Your task to perform on an android device: Go to internet settings Image 0: 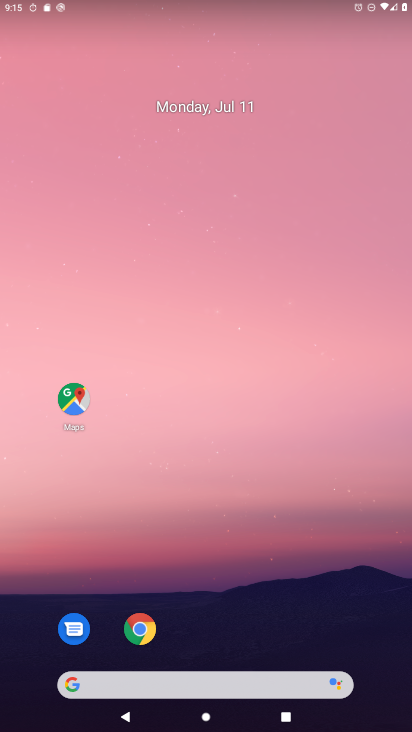
Step 0: drag from (195, 629) to (206, 229)
Your task to perform on an android device: Go to internet settings Image 1: 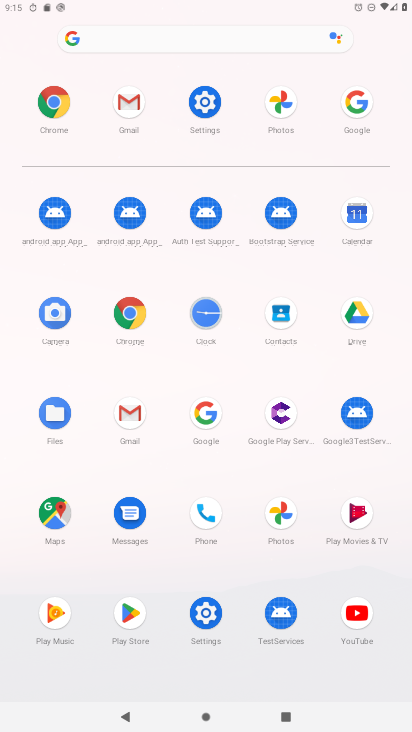
Step 1: click (204, 102)
Your task to perform on an android device: Go to internet settings Image 2: 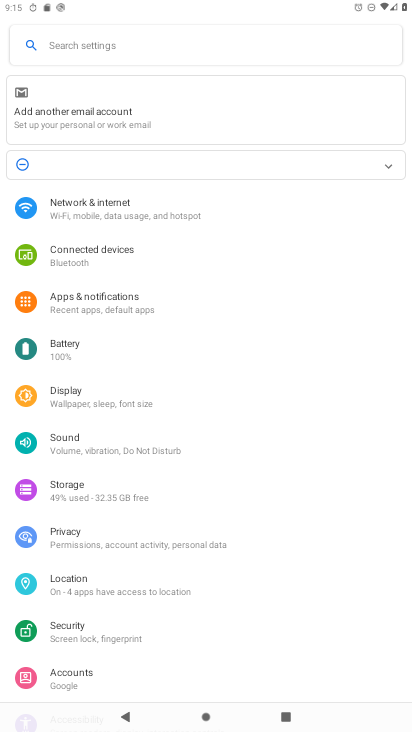
Step 2: click (121, 213)
Your task to perform on an android device: Go to internet settings Image 3: 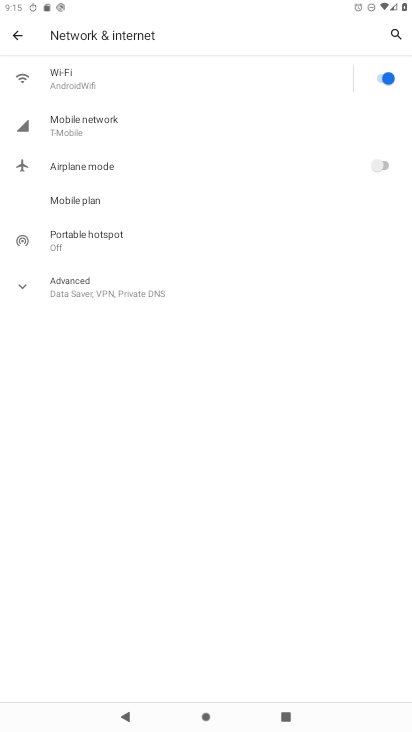
Step 3: click (127, 85)
Your task to perform on an android device: Go to internet settings Image 4: 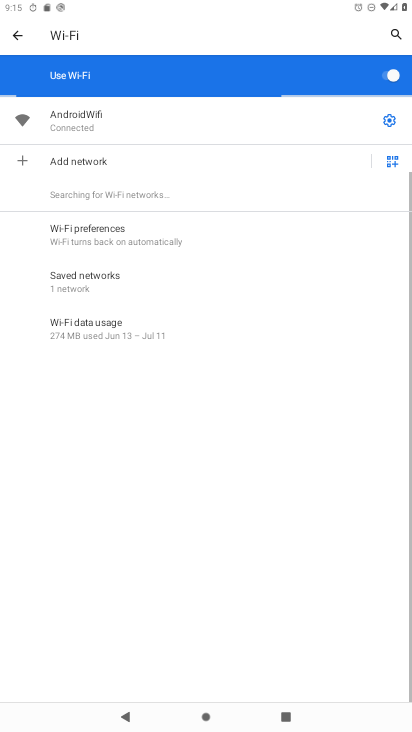
Step 4: click (227, 124)
Your task to perform on an android device: Go to internet settings Image 5: 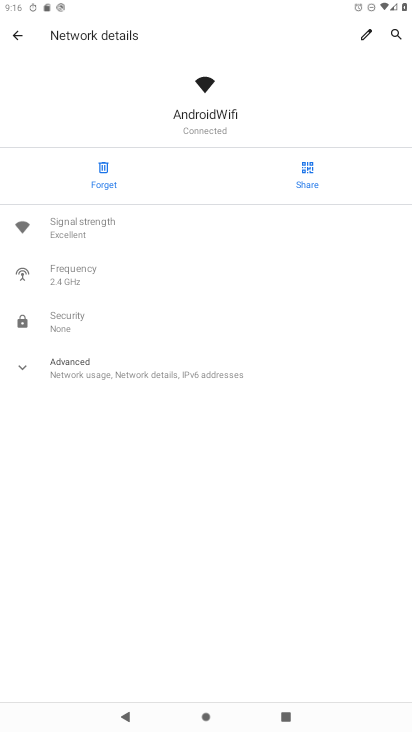
Step 5: task complete